Your task to perform on an android device: What's the weather? Image 0: 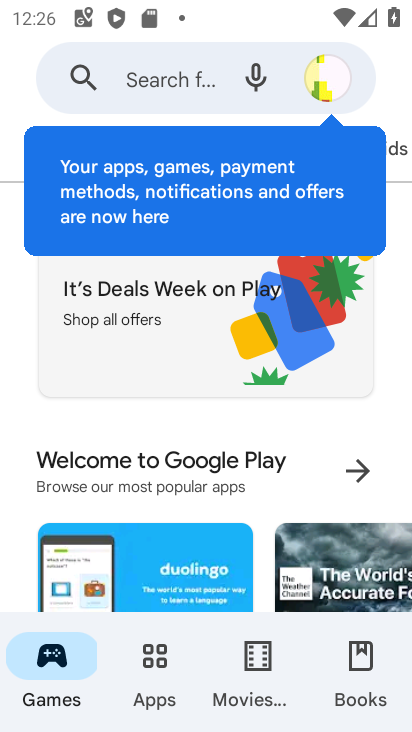
Step 0: press home button
Your task to perform on an android device: What's the weather? Image 1: 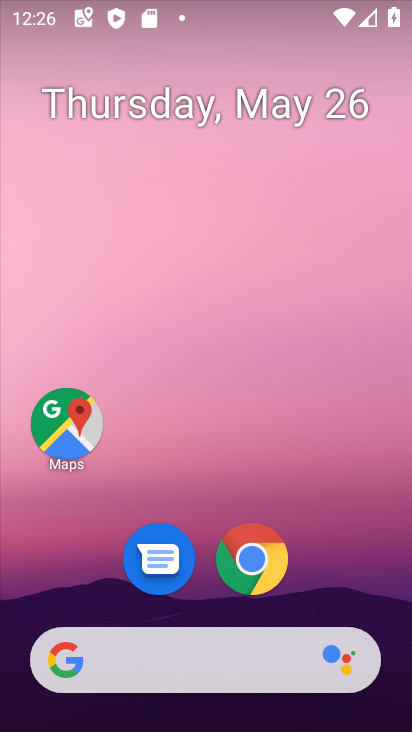
Step 1: drag from (8, 216) to (411, 254)
Your task to perform on an android device: What's the weather? Image 2: 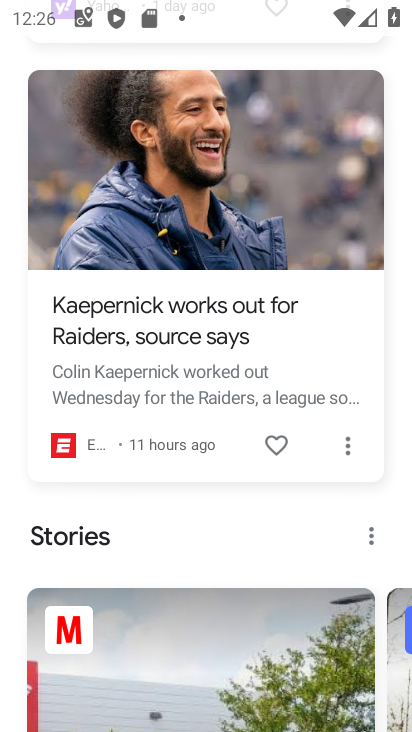
Step 2: drag from (231, 172) to (193, 611)
Your task to perform on an android device: What's the weather? Image 3: 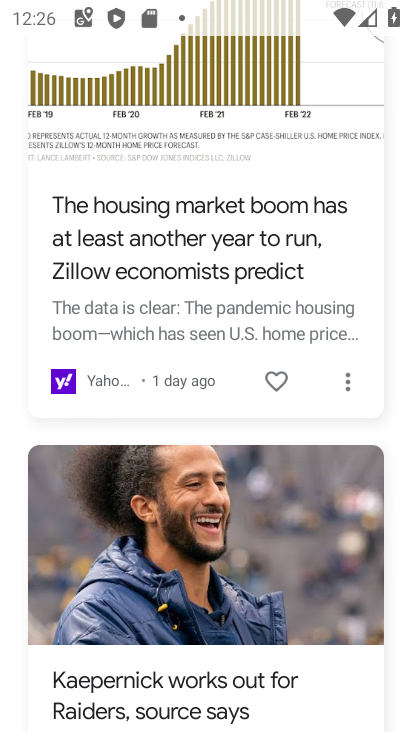
Step 3: drag from (232, 77) to (197, 595)
Your task to perform on an android device: What's the weather? Image 4: 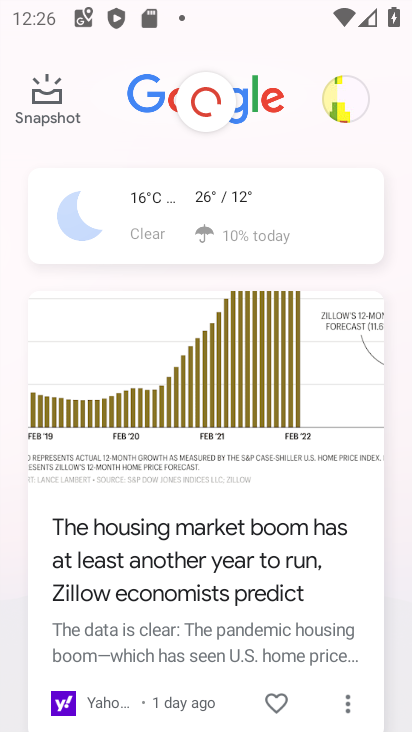
Step 4: click (235, 211)
Your task to perform on an android device: What's the weather? Image 5: 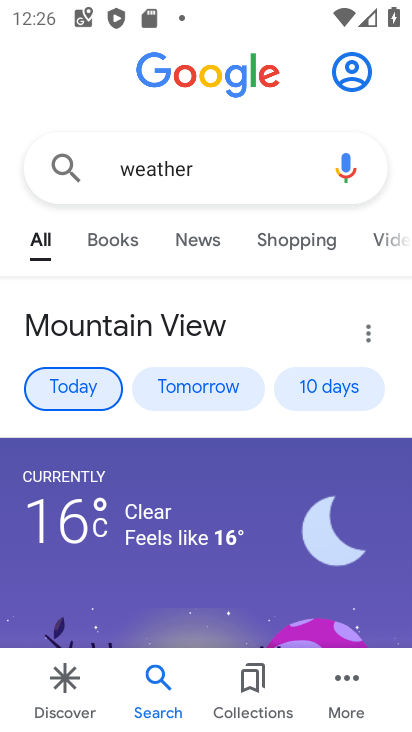
Step 5: task complete